Your task to perform on an android device: Go to wifi settings Image 0: 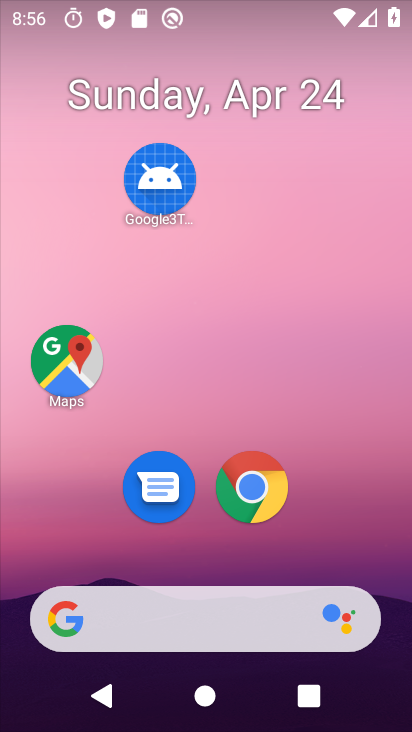
Step 0: drag from (359, 474) to (325, 80)
Your task to perform on an android device: Go to wifi settings Image 1: 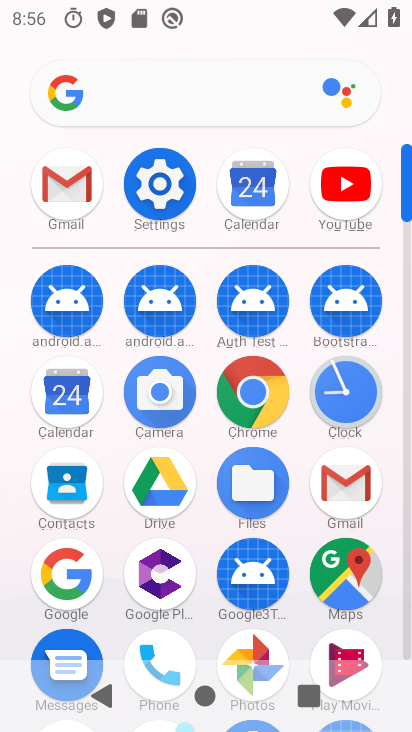
Step 1: click (152, 184)
Your task to perform on an android device: Go to wifi settings Image 2: 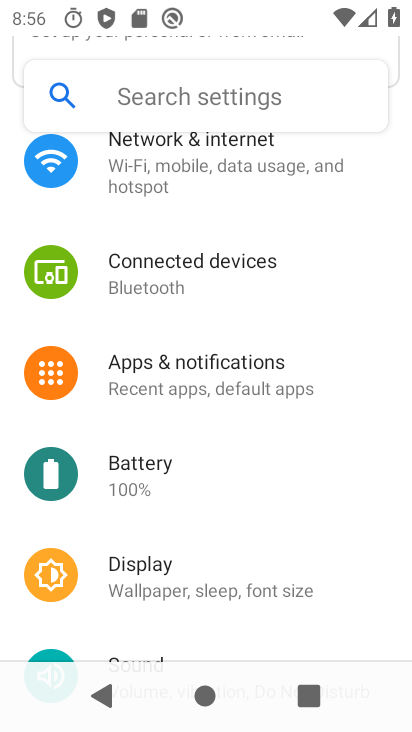
Step 2: click (154, 154)
Your task to perform on an android device: Go to wifi settings Image 3: 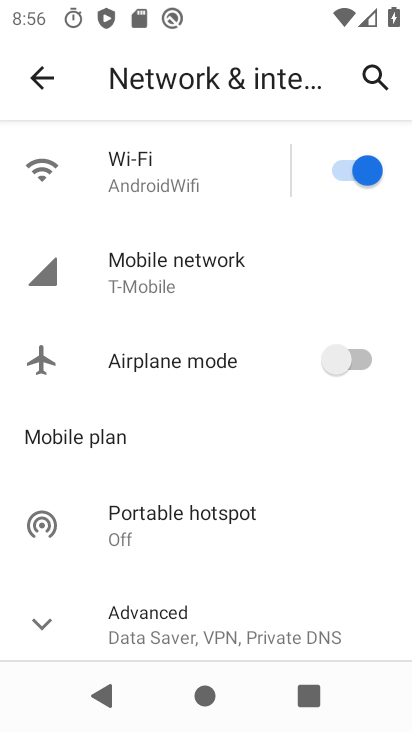
Step 3: click (154, 154)
Your task to perform on an android device: Go to wifi settings Image 4: 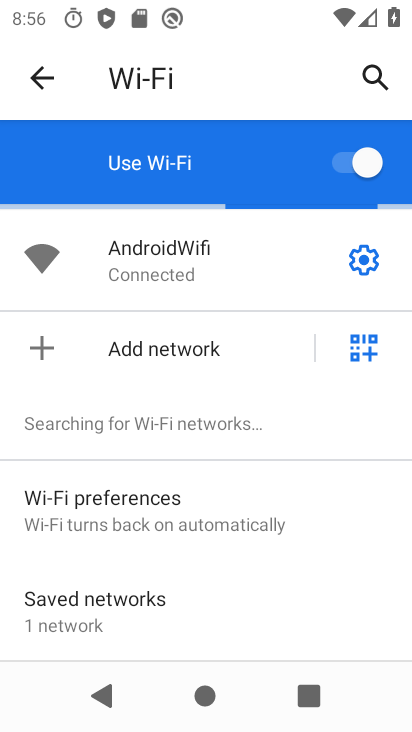
Step 4: task complete